Your task to perform on an android device: turn on bluetooth scan Image 0: 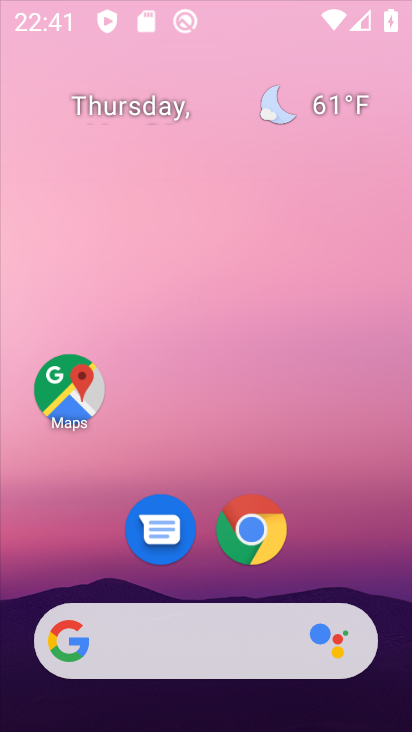
Step 0: click (250, 553)
Your task to perform on an android device: turn on bluetooth scan Image 1: 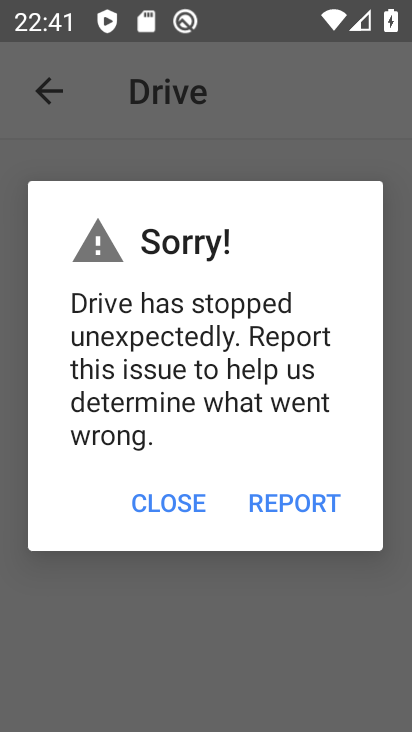
Step 1: click (187, 512)
Your task to perform on an android device: turn on bluetooth scan Image 2: 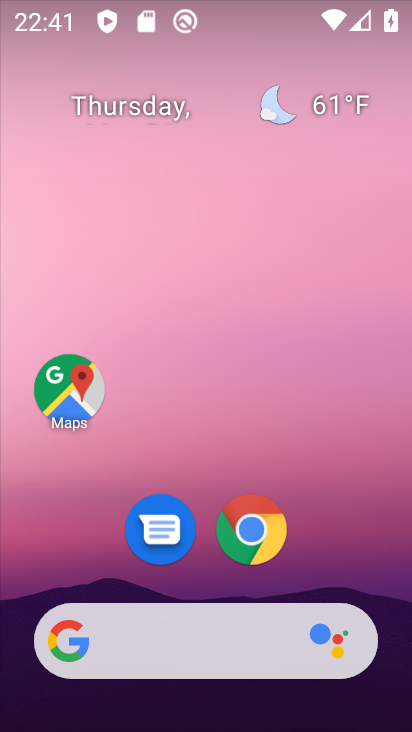
Step 2: drag from (352, 562) to (335, 5)
Your task to perform on an android device: turn on bluetooth scan Image 3: 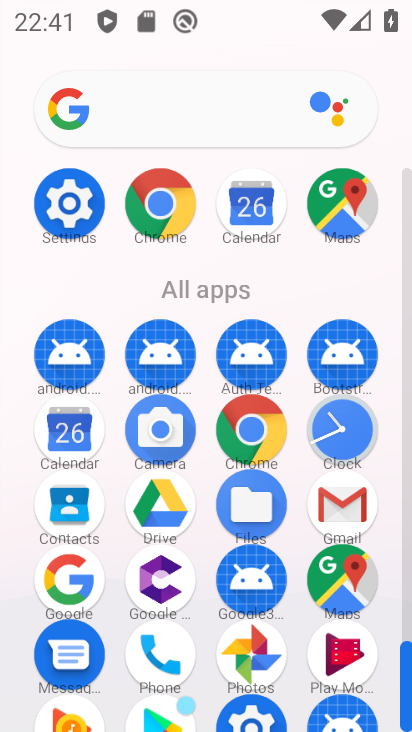
Step 3: click (74, 183)
Your task to perform on an android device: turn on bluetooth scan Image 4: 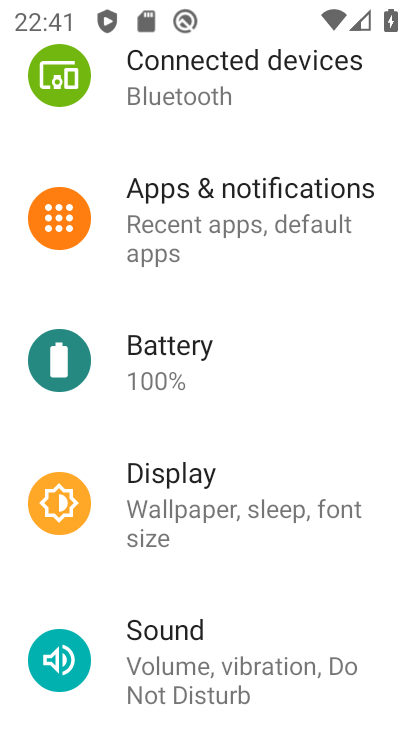
Step 4: drag from (175, 653) to (220, 217)
Your task to perform on an android device: turn on bluetooth scan Image 5: 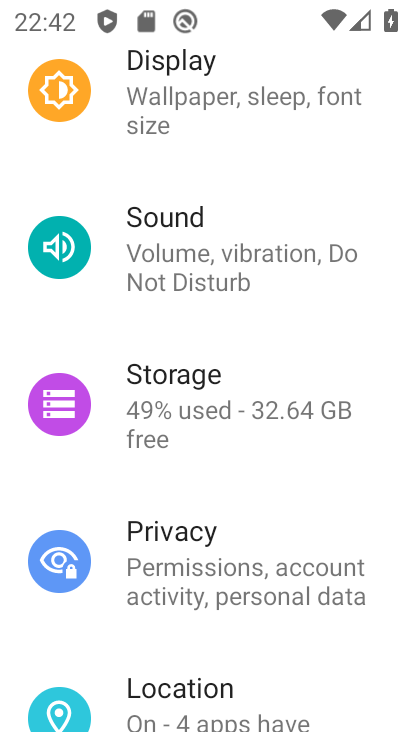
Step 5: click (211, 691)
Your task to perform on an android device: turn on bluetooth scan Image 6: 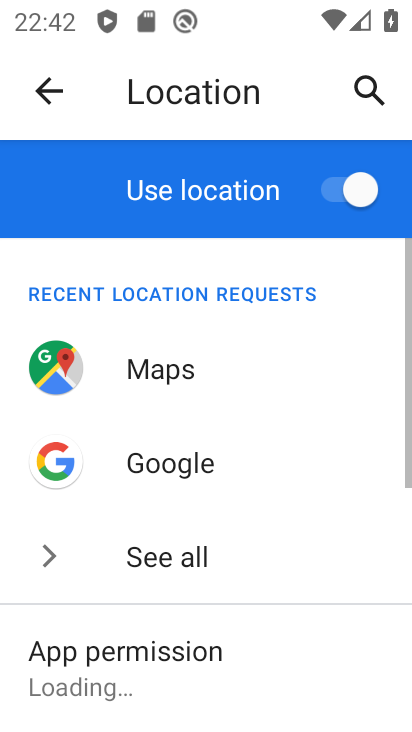
Step 6: drag from (211, 691) to (209, 270)
Your task to perform on an android device: turn on bluetooth scan Image 7: 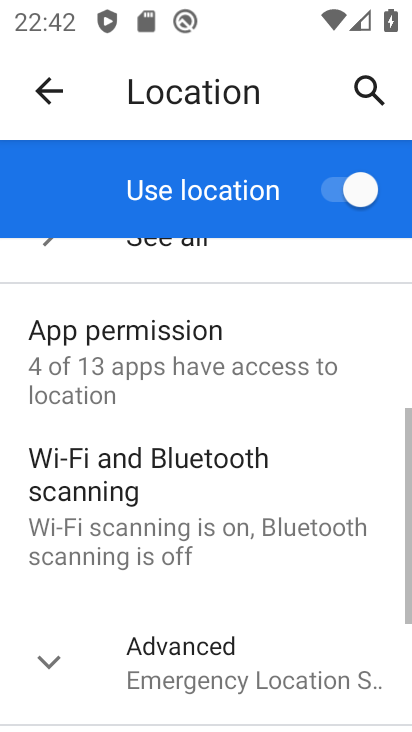
Step 7: click (262, 541)
Your task to perform on an android device: turn on bluetooth scan Image 8: 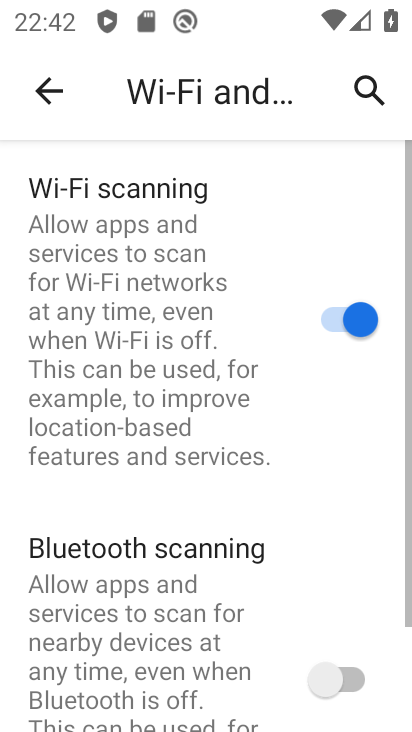
Step 8: click (306, 661)
Your task to perform on an android device: turn on bluetooth scan Image 9: 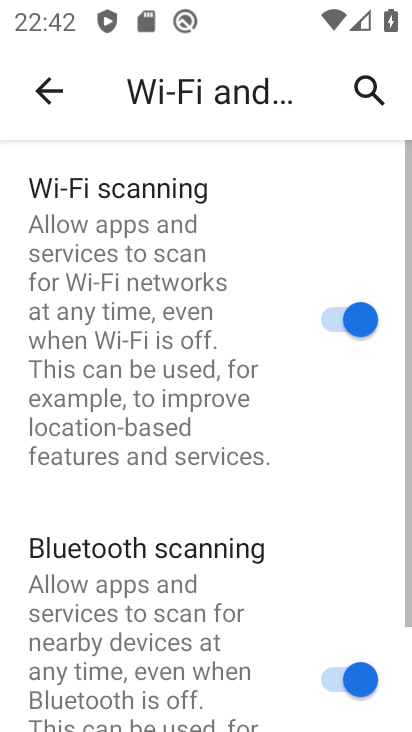
Step 9: task complete